Your task to perform on an android device: check google app version Image 0: 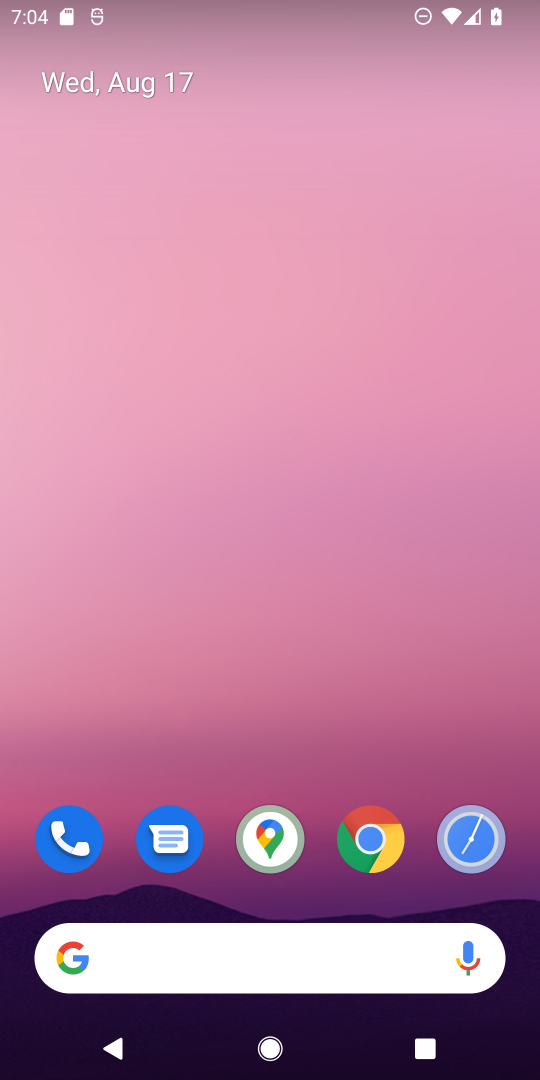
Step 0: drag from (239, 914) to (290, 42)
Your task to perform on an android device: check google app version Image 1: 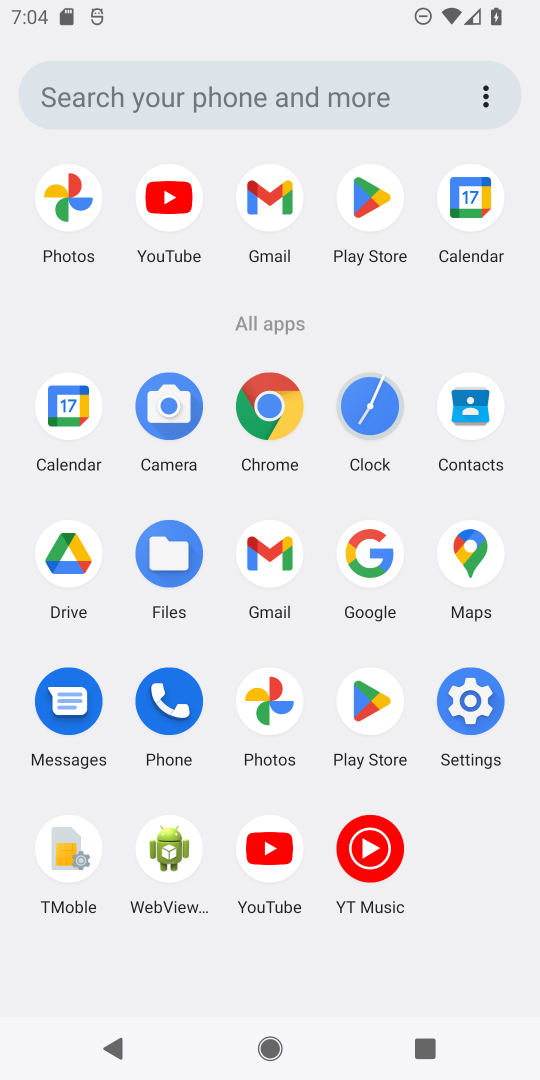
Step 1: click (379, 544)
Your task to perform on an android device: check google app version Image 2: 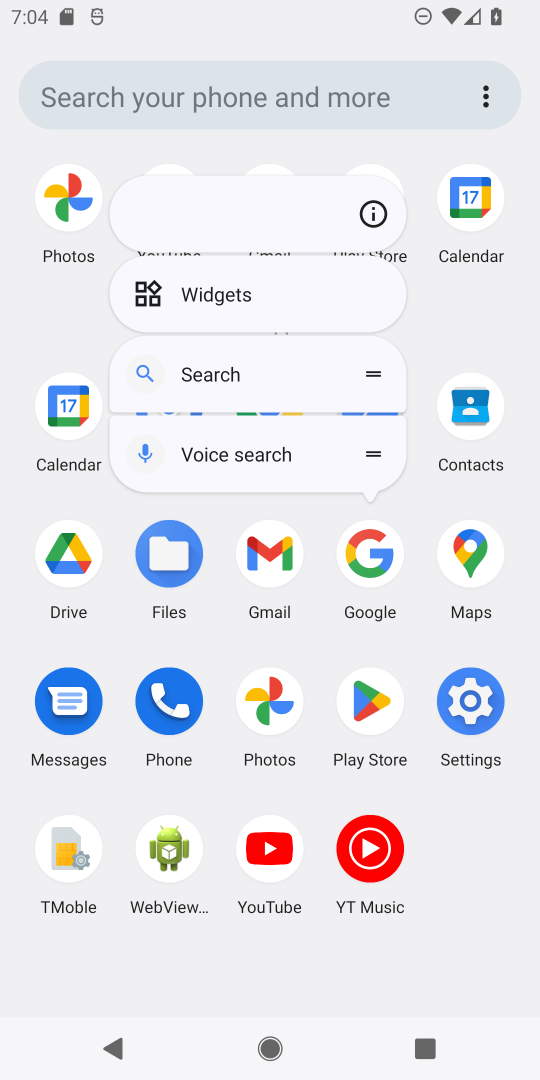
Step 2: click (375, 217)
Your task to perform on an android device: check google app version Image 3: 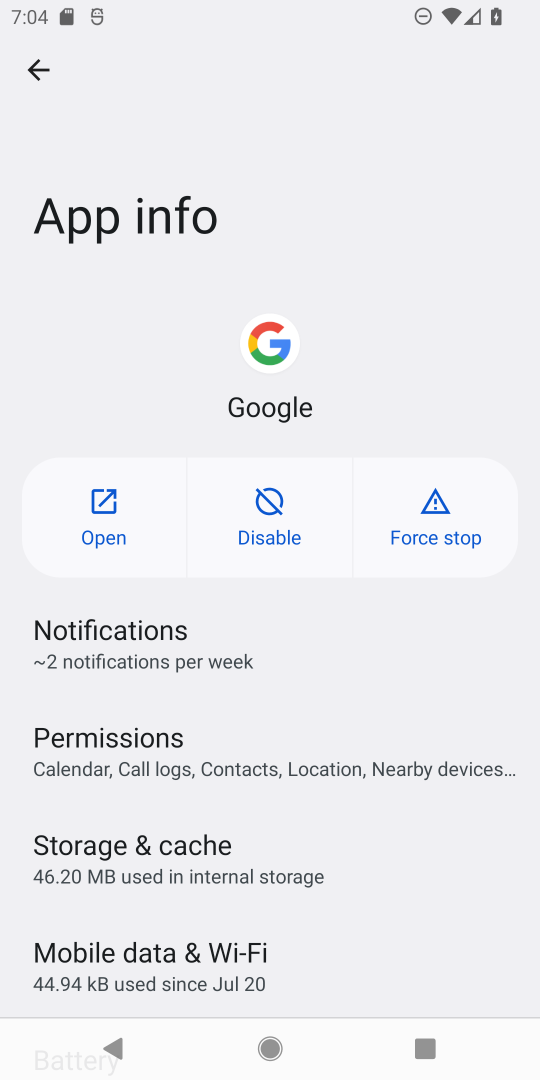
Step 3: task complete